Your task to perform on an android device: change keyboard looks Image 0: 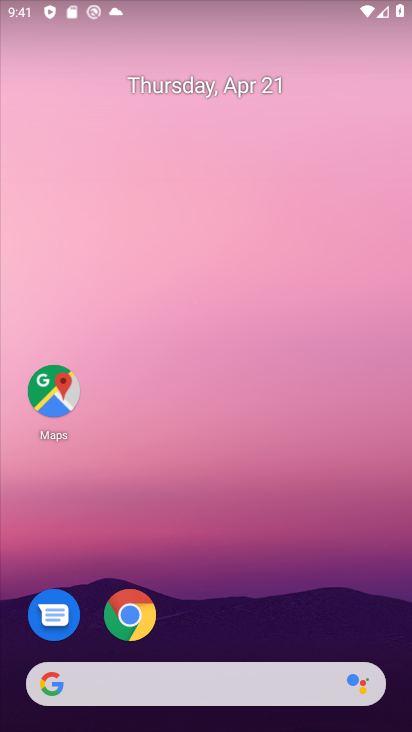
Step 0: drag from (213, 600) to (221, 119)
Your task to perform on an android device: change keyboard looks Image 1: 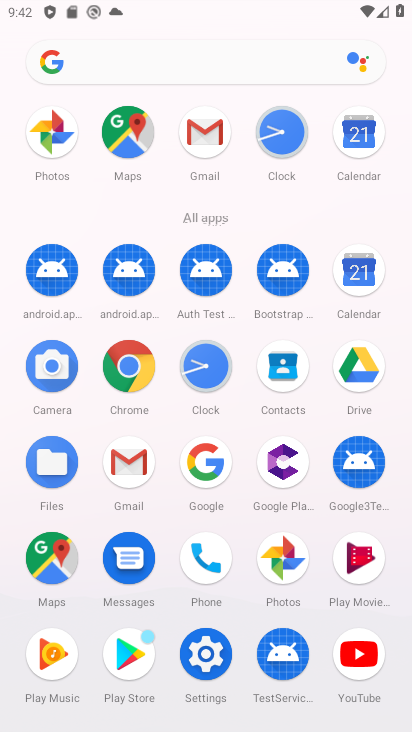
Step 1: click (202, 650)
Your task to perform on an android device: change keyboard looks Image 2: 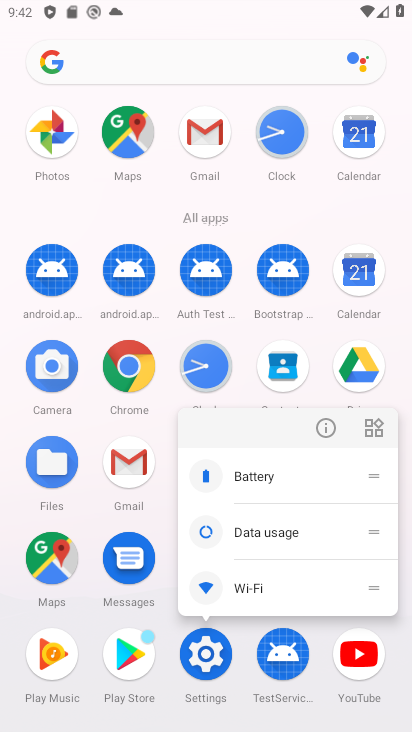
Step 2: click (204, 650)
Your task to perform on an android device: change keyboard looks Image 3: 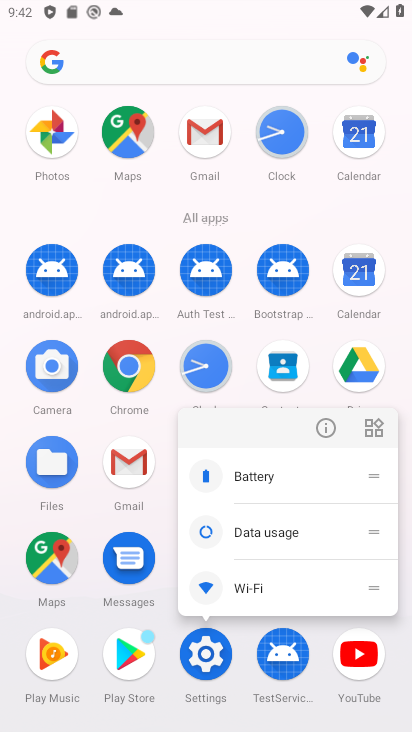
Step 3: click (204, 650)
Your task to perform on an android device: change keyboard looks Image 4: 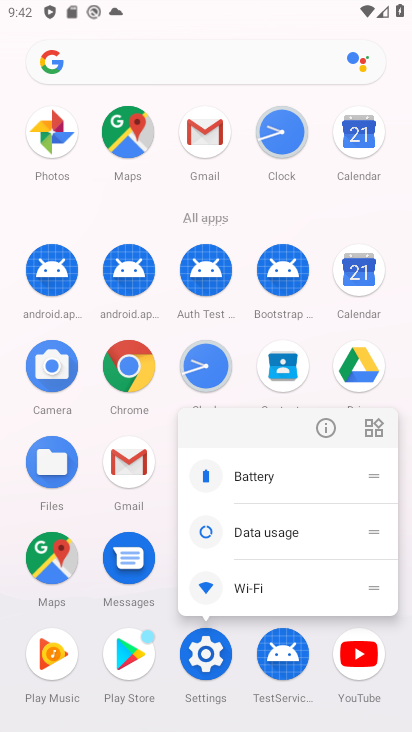
Step 4: click (168, 705)
Your task to perform on an android device: change keyboard looks Image 5: 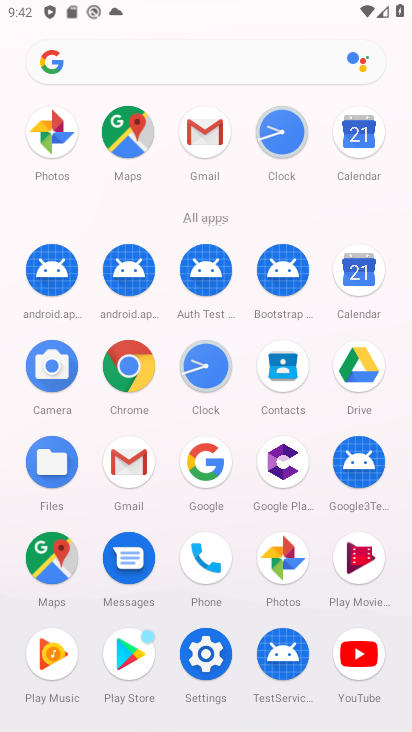
Step 5: click (197, 654)
Your task to perform on an android device: change keyboard looks Image 6: 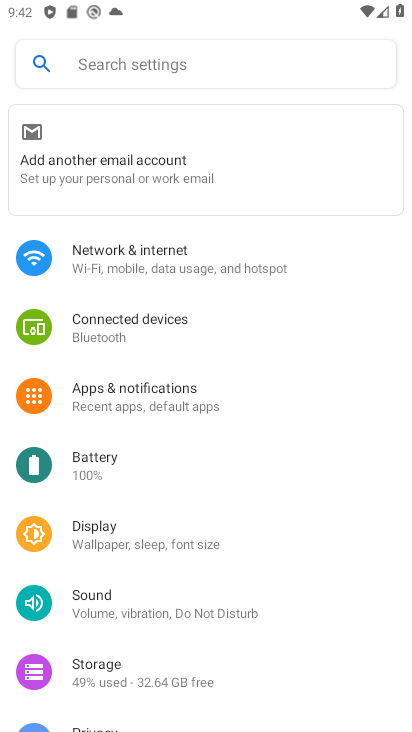
Step 6: drag from (166, 663) to (199, 213)
Your task to perform on an android device: change keyboard looks Image 7: 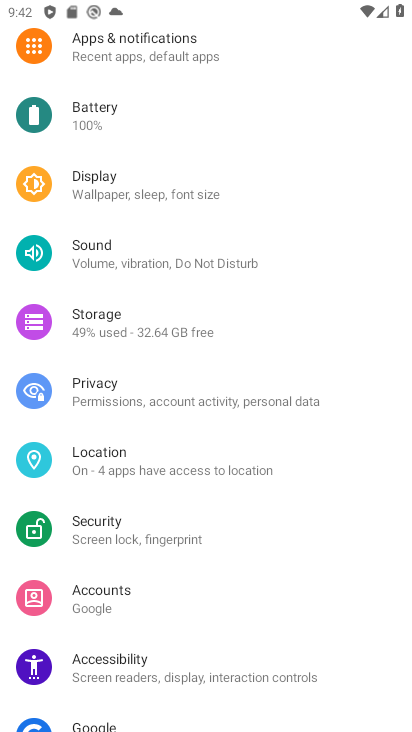
Step 7: drag from (188, 641) to (187, 241)
Your task to perform on an android device: change keyboard looks Image 8: 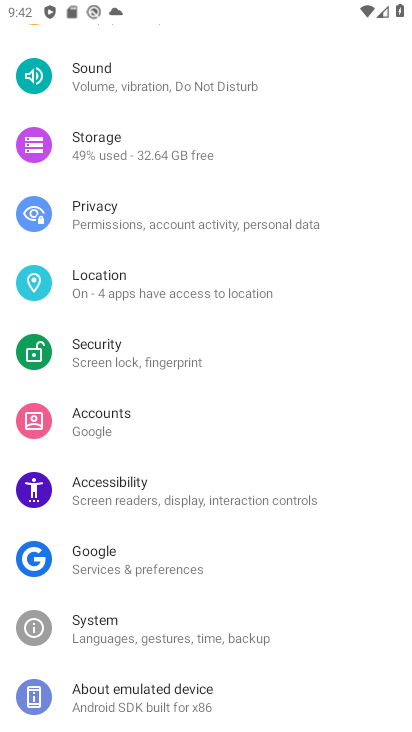
Step 8: click (126, 616)
Your task to perform on an android device: change keyboard looks Image 9: 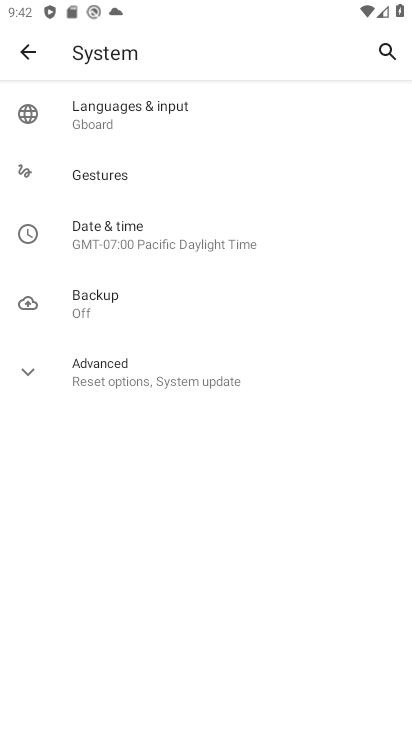
Step 9: click (109, 117)
Your task to perform on an android device: change keyboard looks Image 10: 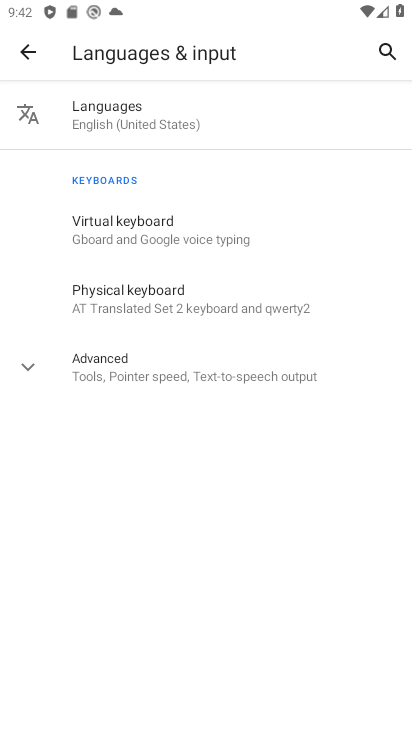
Step 10: click (133, 226)
Your task to perform on an android device: change keyboard looks Image 11: 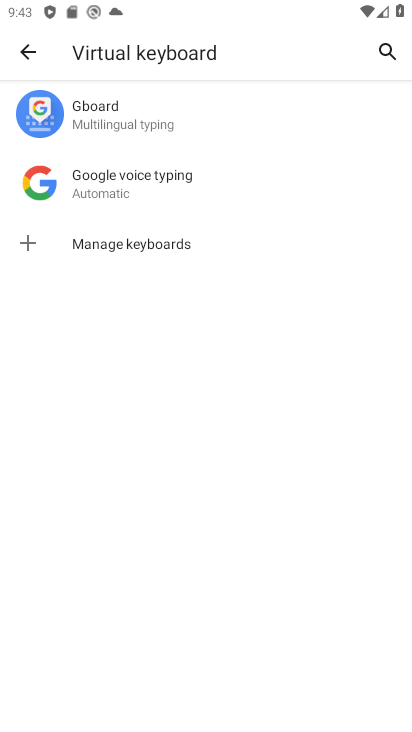
Step 11: click (137, 111)
Your task to perform on an android device: change keyboard looks Image 12: 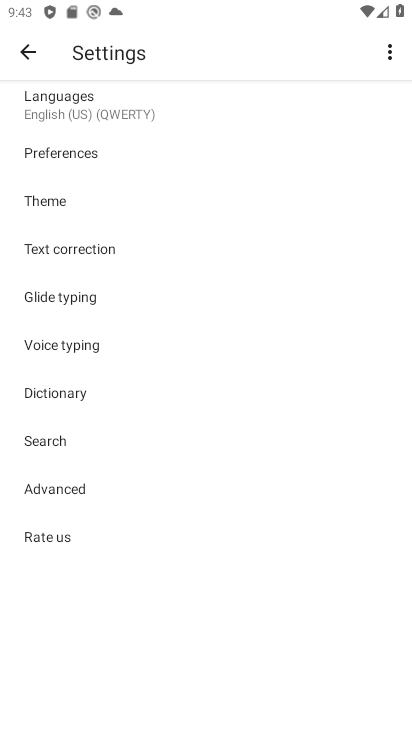
Step 12: click (73, 196)
Your task to perform on an android device: change keyboard looks Image 13: 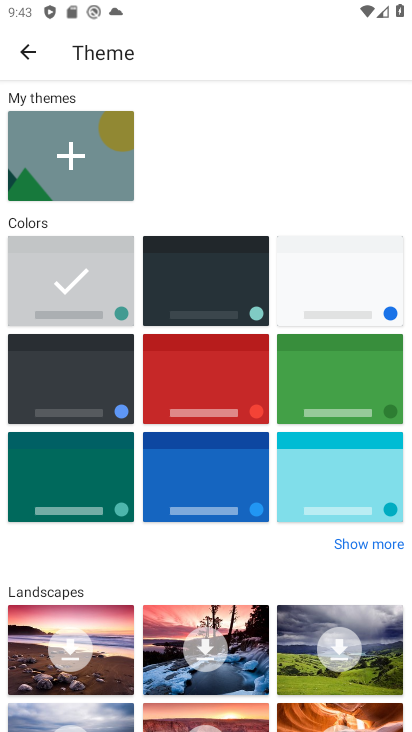
Step 13: click (205, 396)
Your task to perform on an android device: change keyboard looks Image 14: 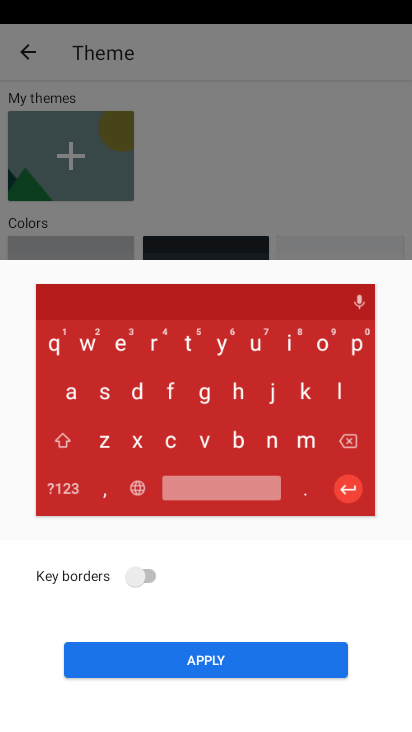
Step 14: click (206, 659)
Your task to perform on an android device: change keyboard looks Image 15: 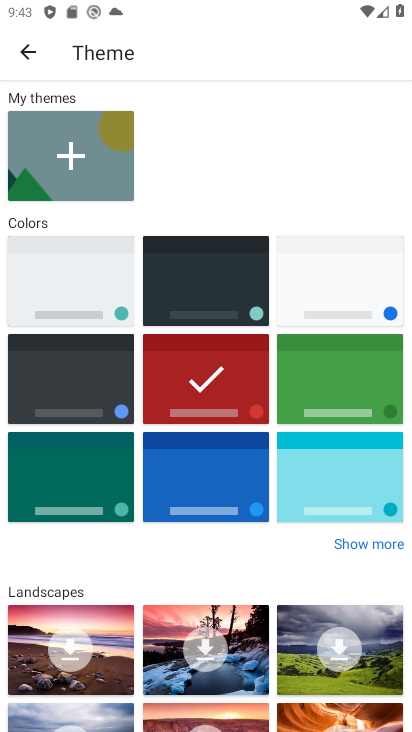
Step 15: task complete